Your task to perform on an android device: Open Yahoo.com Image 0: 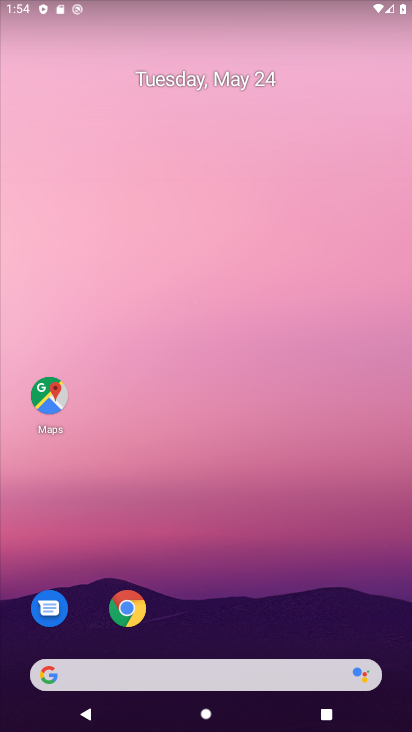
Step 0: drag from (297, 568) to (260, 2)
Your task to perform on an android device: Open Yahoo.com Image 1: 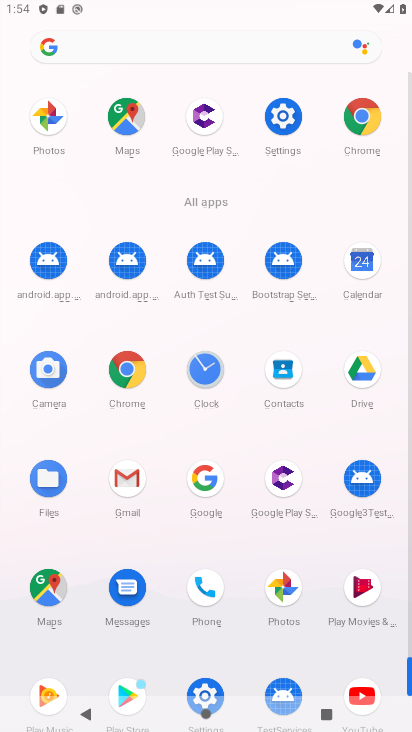
Step 1: drag from (7, 551) to (3, 170)
Your task to perform on an android device: Open Yahoo.com Image 2: 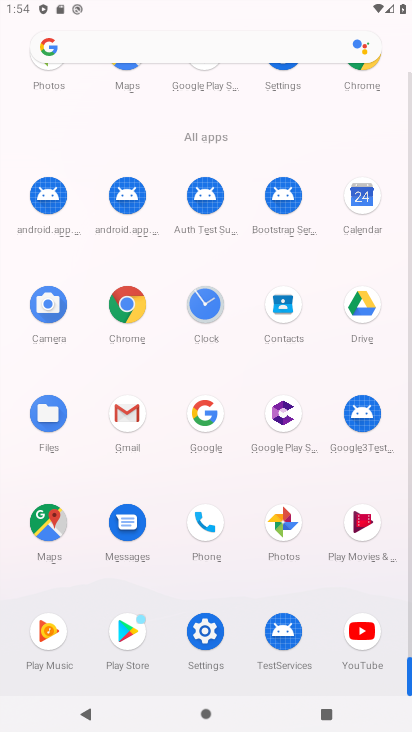
Step 2: click (128, 304)
Your task to perform on an android device: Open Yahoo.com Image 3: 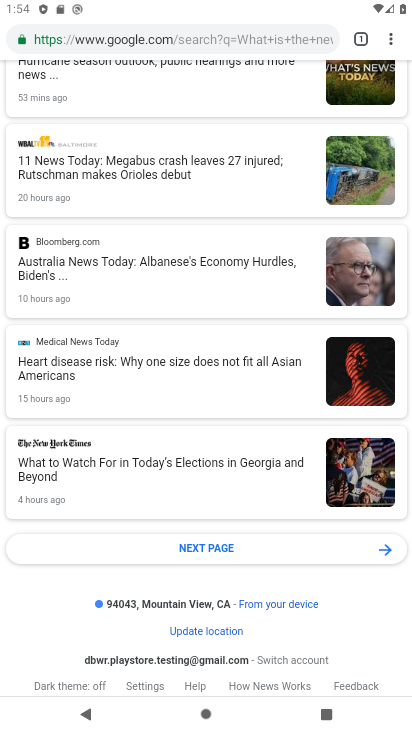
Step 3: click (109, 38)
Your task to perform on an android device: Open Yahoo.com Image 4: 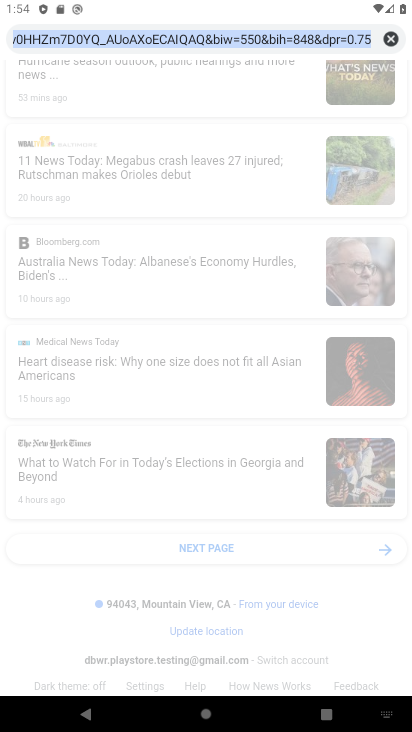
Step 4: click (389, 34)
Your task to perform on an android device: Open Yahoo.com Image 5: 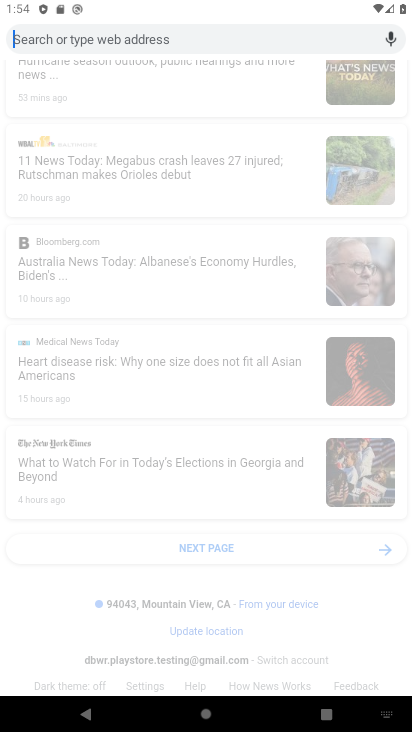
Step 5: type "Yahoo.com"
Your task to perform on an android device: Open Yahoo.com Image 6: 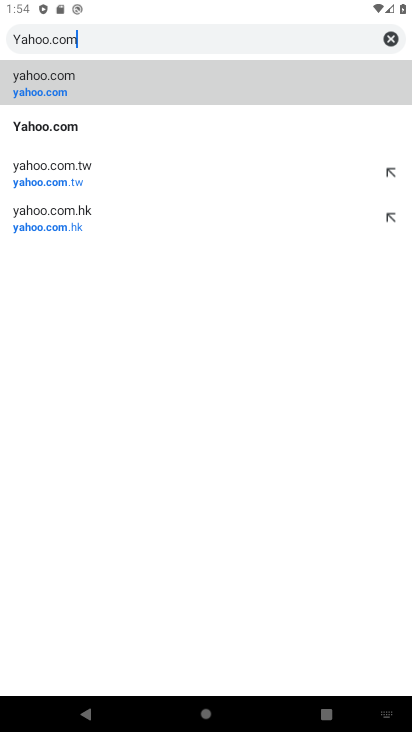
Step 6: type ""
Your task to perform on an android device: Open Yahoo.com Image 7: 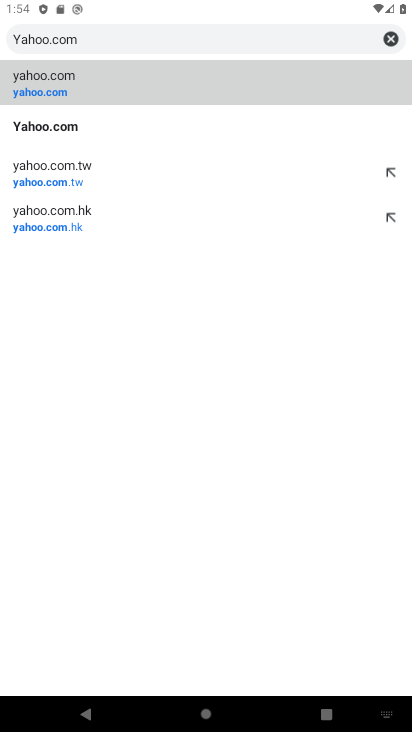
Step 7: click (95, 97)
Your task to perform on an android device: Open Yahoo.com Image 8: 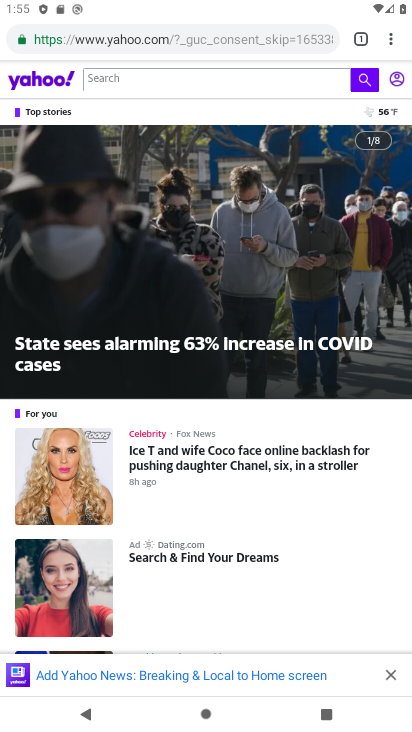
Step 8: task complete